Your task to perform on an android device: What's on my calendar tomorrow? Image 0: 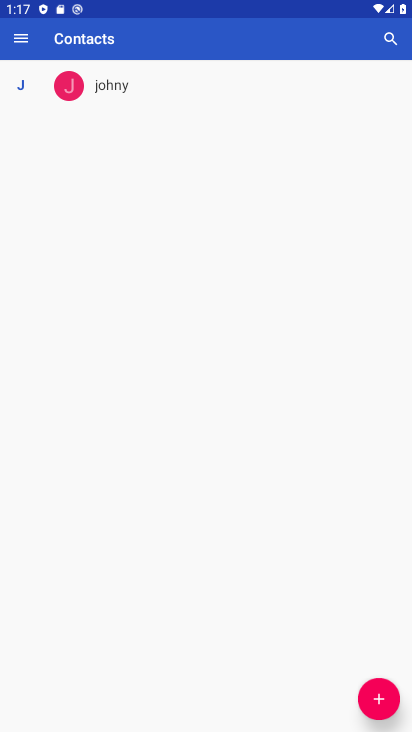
Step 0: press home button
Your task to perform on an android device: What's on my calendar tomorrow? Image 1: 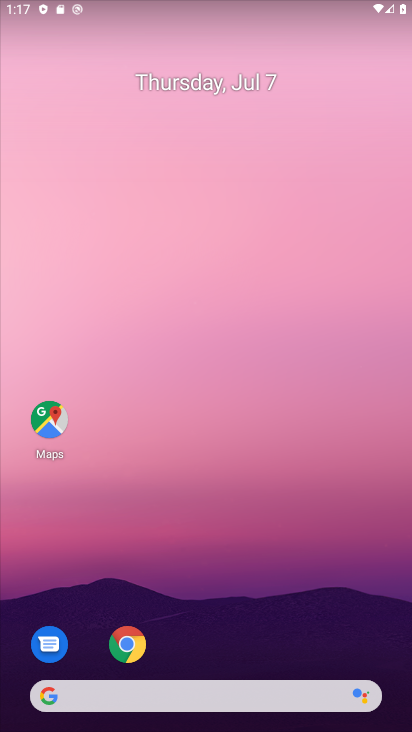
Step 1: drag from (269, 642) to (227, 101)
Your task to perform on an android device: What's on my calendar tomorrow? Image 2: 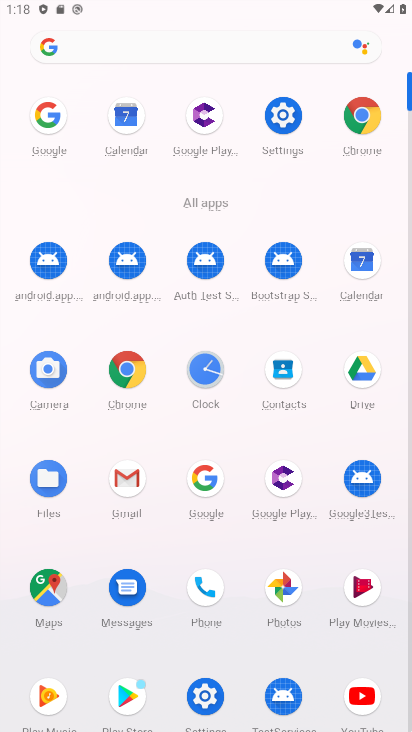
Step 2: click (360, 265)
Your task to perform on an android device: What's on my calendar tomorrow? Image 3: 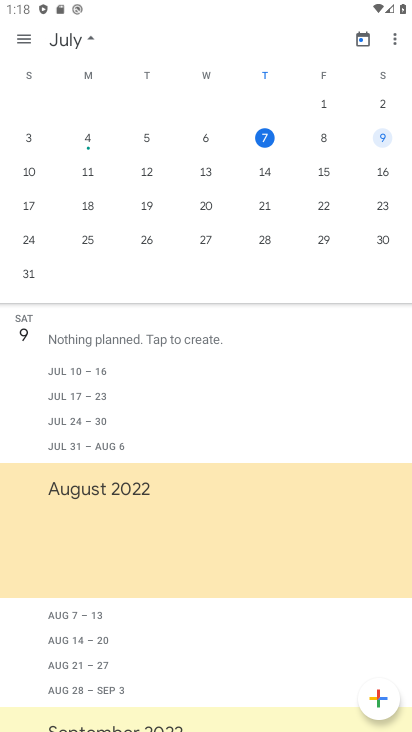
Step 3: click (363, 44)
Your task to perform on an android device: What's on my calendar tomorrow? Image 4: 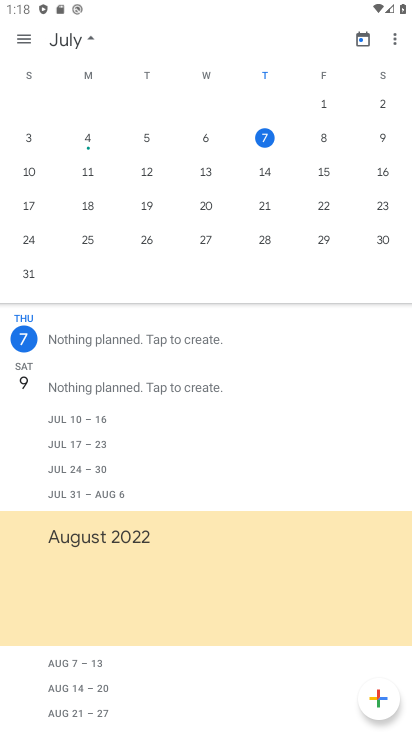
Step 4: click (325, 137)
Your task to perform on an android device: What's on my calendar tomorrow? Image 5: 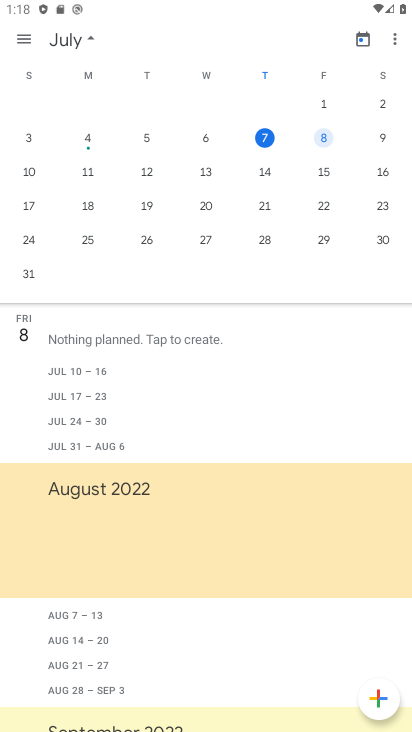
Step 5: click (24, 41)
Your task to perform on an android device: What's on my calendar tomorrow? Image 6: 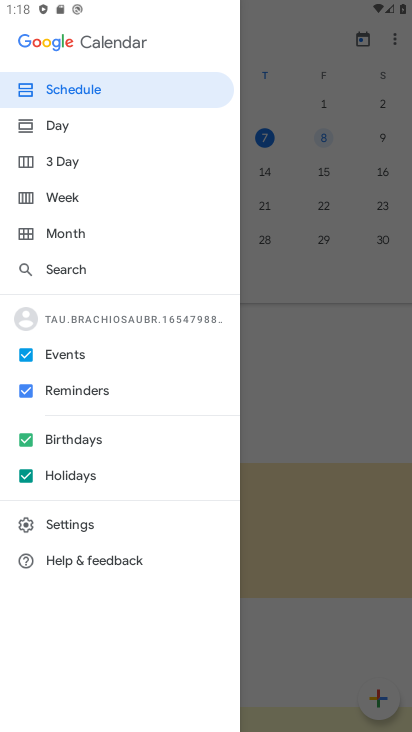
Step 6: click (78, 140)
Your task to perform on an android device: What's on my calendar tomorrow? Image 7: 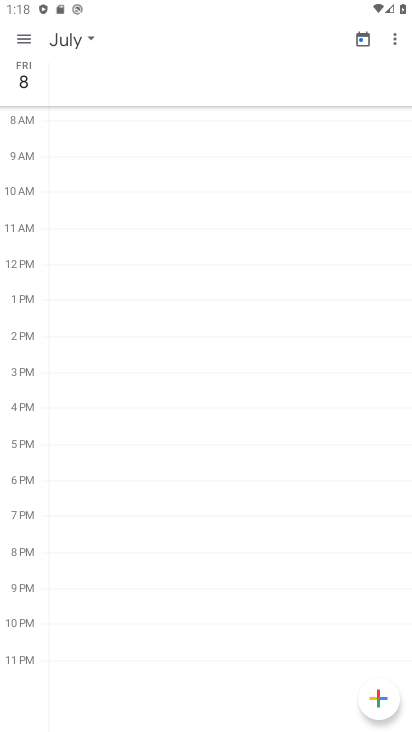
Step 7: task complete